Your task to perform on an android device: turn off improve location accuracy Image 0: 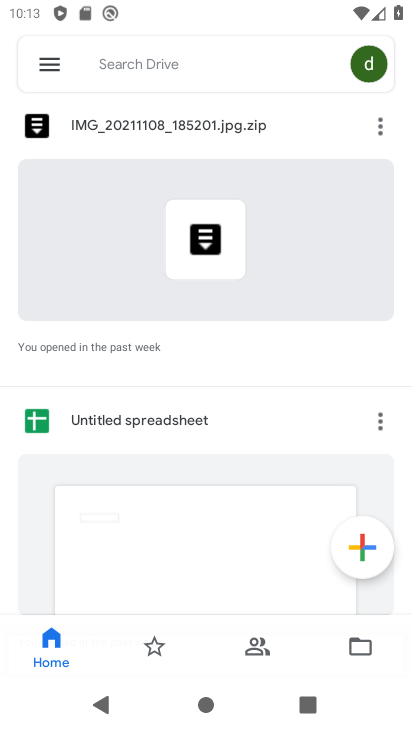
Step 0: press back button
Your task to perform on an android device: turn off improve location accuracy Image 1: 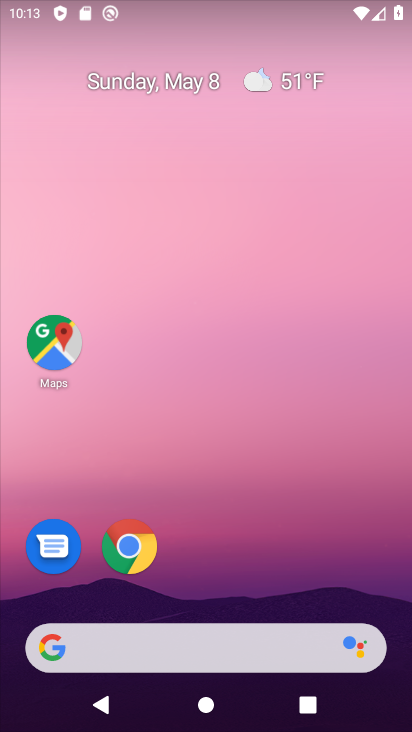
Step 1: drag from (246, 565) to (201, 201)
Your task to perform on an android device: turn off improve location accuracy Image 2: 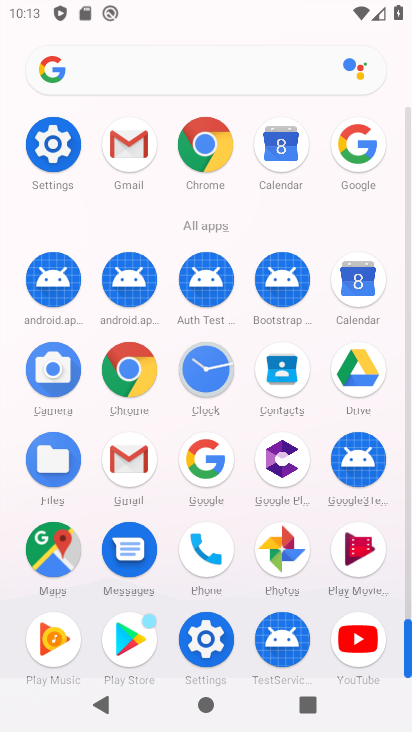
Step 2: click (52, 146)
Your task to perform on an android device: turn off improve location accuracy Image 3: 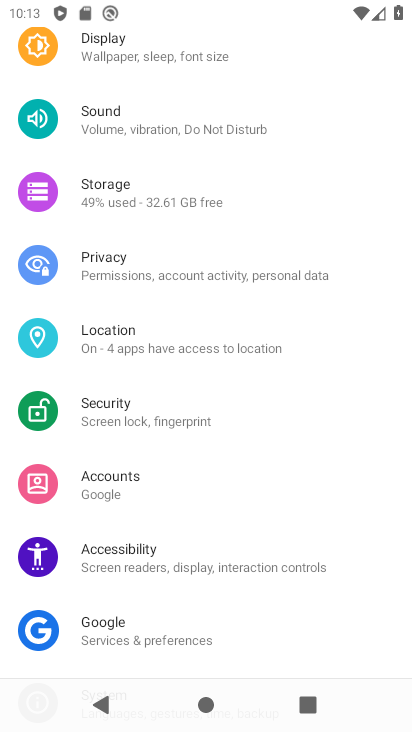
Step 3: click (181, 353)
Your task to perform on an android device: turn off improve location accuracy Image 4: 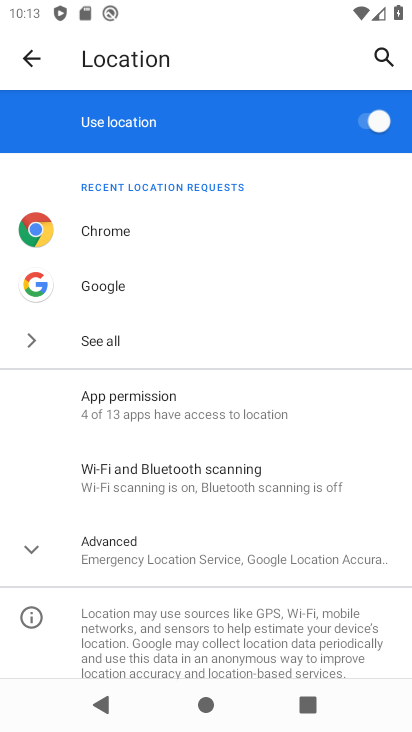
Step 4: click (143, 554)
Your task to perform on an android device: turn off improve location accuracy Image 5: 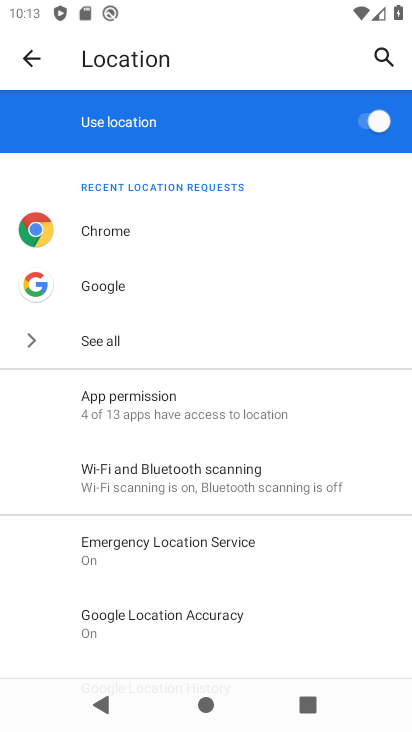
Step 5: click (151, 616)
Your task to perform on an android device: turn off improve location accuracy Image 6: 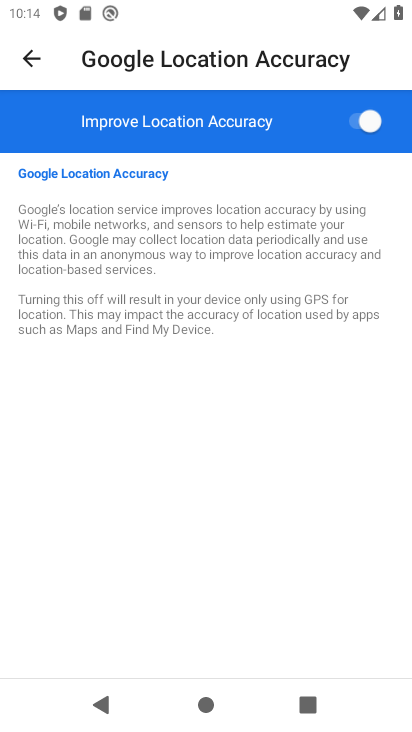
Step 6: click (367, 119)
Your task to perform on an android device: turn off improve location accuracy Image 7: 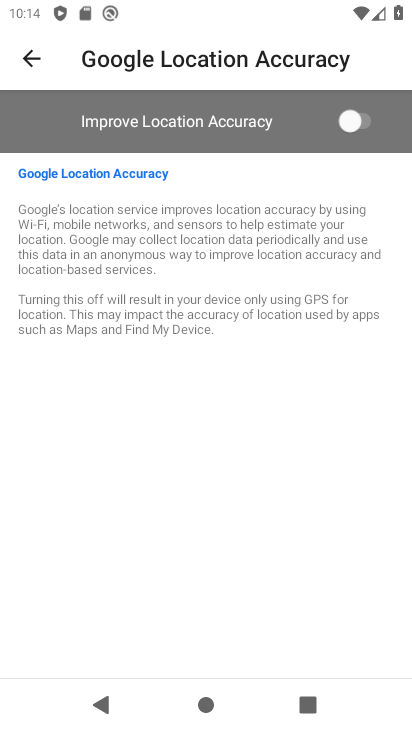
Step 7: task complete